Your task to perform on an android device: Open maps Image 0: 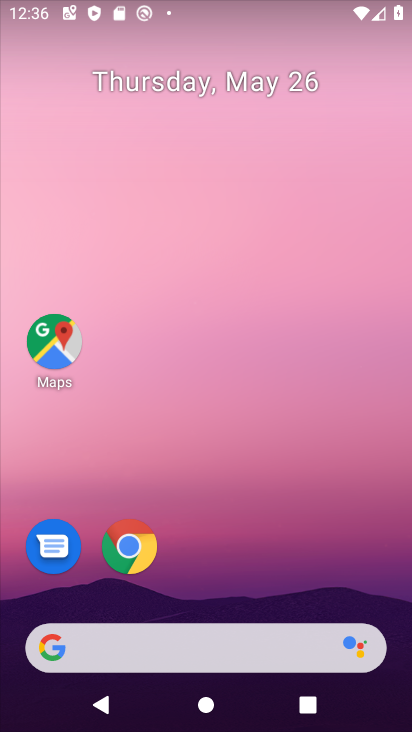
Step 0: click (40, 367)
Your task to perform on an android device: Open maps Image 1: 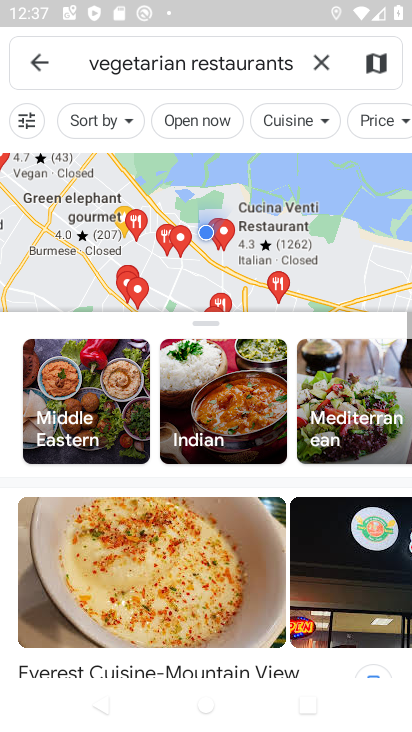
Step 1: task complete